Your task to perform on an android device: toggle translation in the chrome app Image 0: 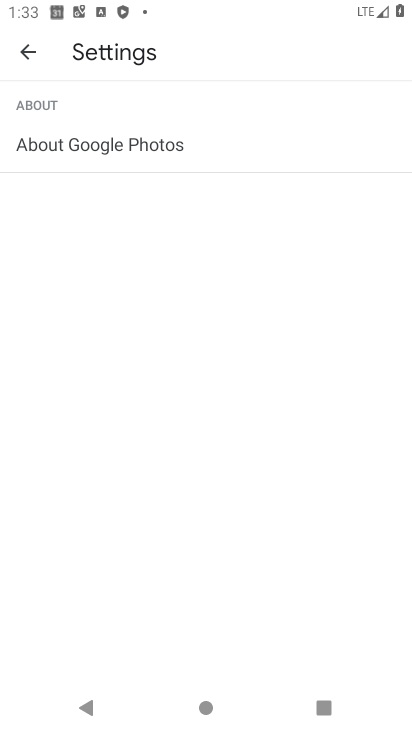
Step 0: press home button
Your task to perform on an android device: toggle translation in the chrome app Image 1: 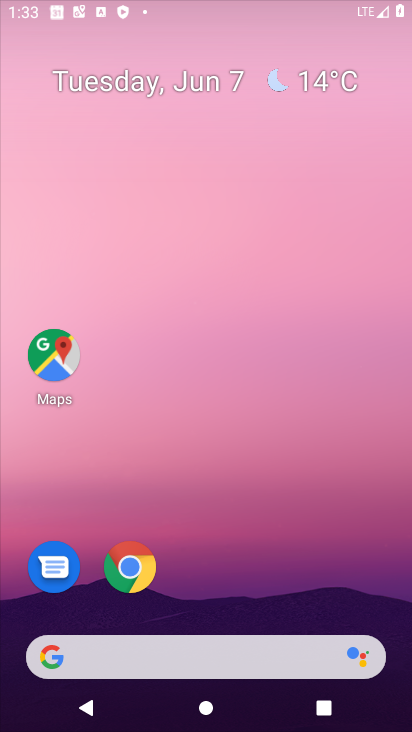
Step 1: drag from (169, 661) to (203, 16)
Your task to perform on an android device: toggle translation in the chrome app Image 2: 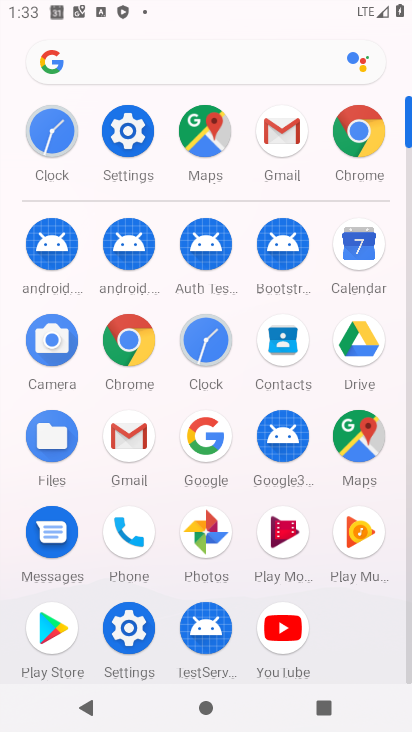
Step 2: click (134, 348)
Your task to perform on an android device: toggle translation in the chrome app Image 3: 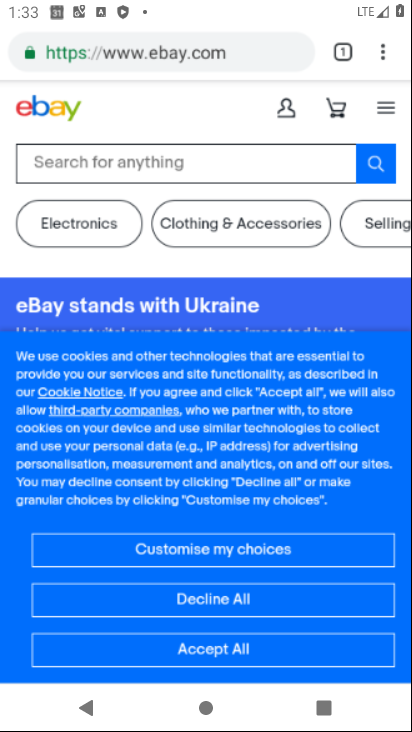
Step 3: drag from (380, 59) to (207, 415)
Your task to perform on an android device: toggle translation in the chrome app Image 4: 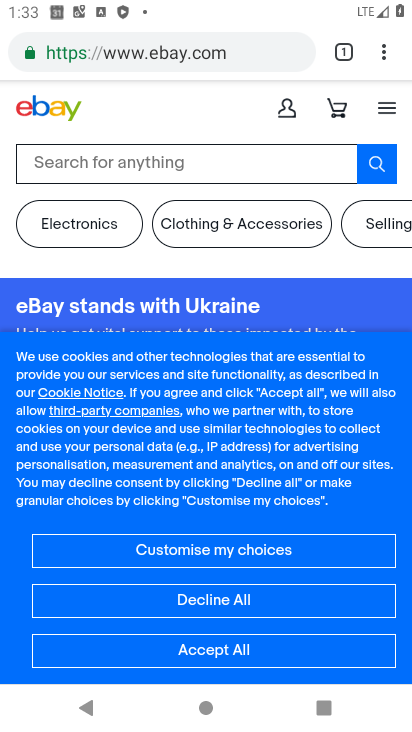
Step 4: click (386, 56)
Your task to perform on an android device: toggle translation in the chrome app Image 5: 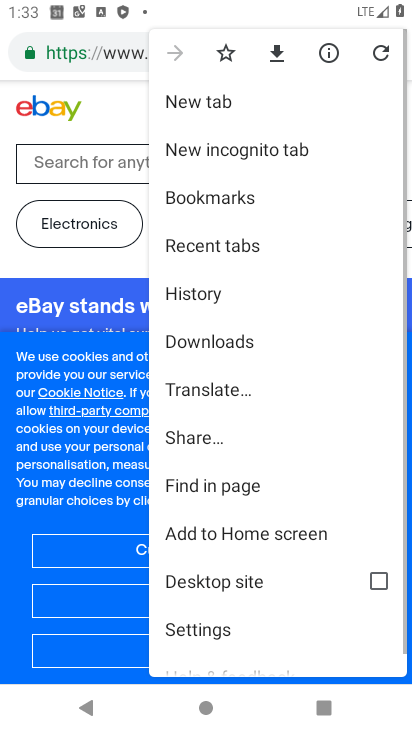
Step 5: click (219, 631)
Your task to perform on an android device: toggle translation in the chrome app Image 6: 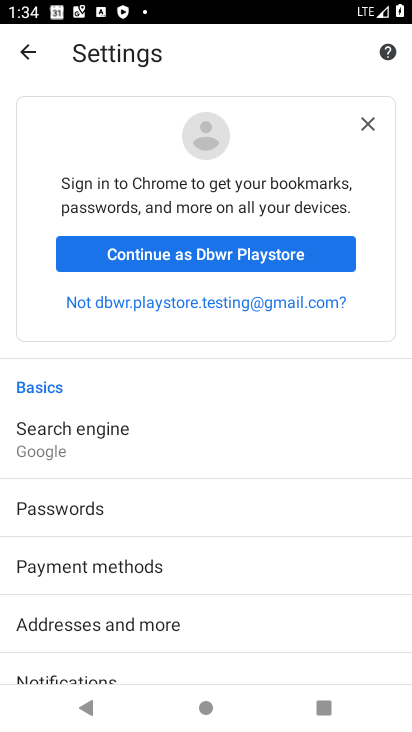
Step 6: drag from (171, 574) to (173, 133)
Your task to perform on an android device: toggle translation in the chrome app Image 7: 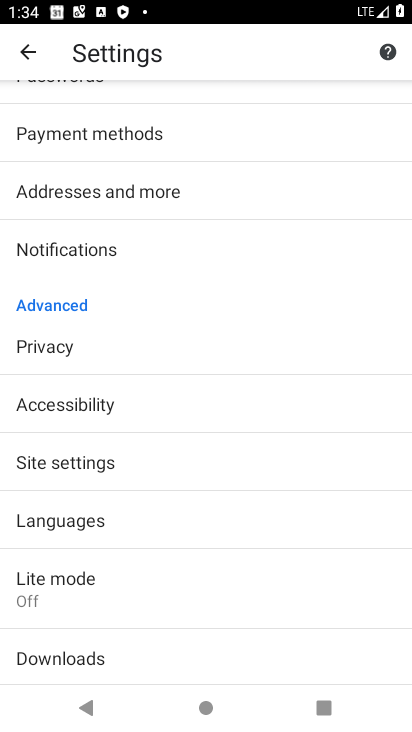
Step 7: click (108, 524)
Your task to perform on an android device: toggle translation in the chrome app Image 8: 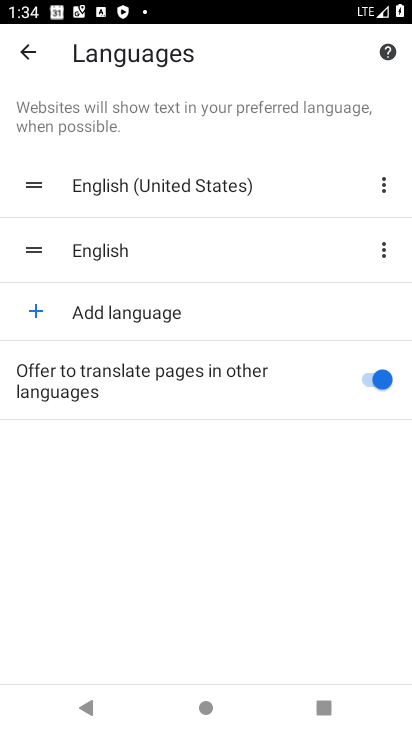
Step 8: click (377, 380)
Your task to perform on an android device: toggle translation in the chrome app Image 9: 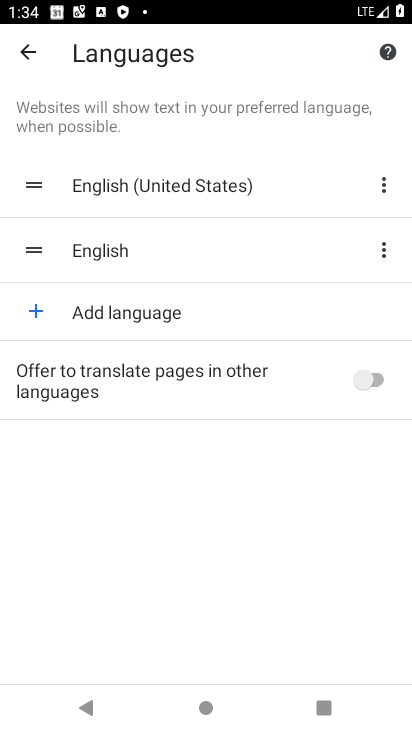
Step 9: task complete